Your task to perform on an android device: turn off translation in the chrome app Image 0: 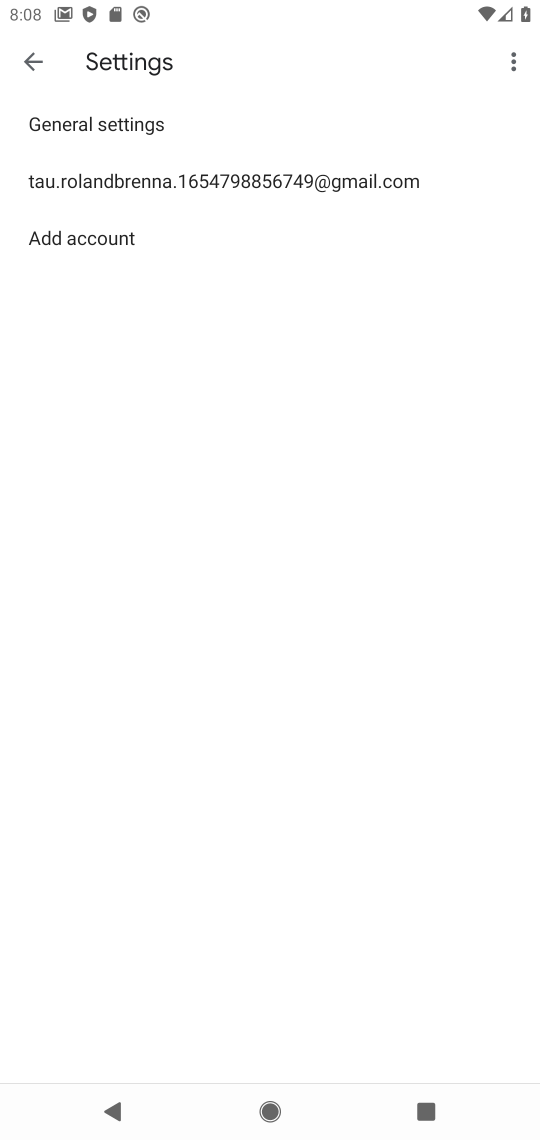
Step 0: press home button
Your task to perform on an android device: turn off translation in the chrome app Image 1: 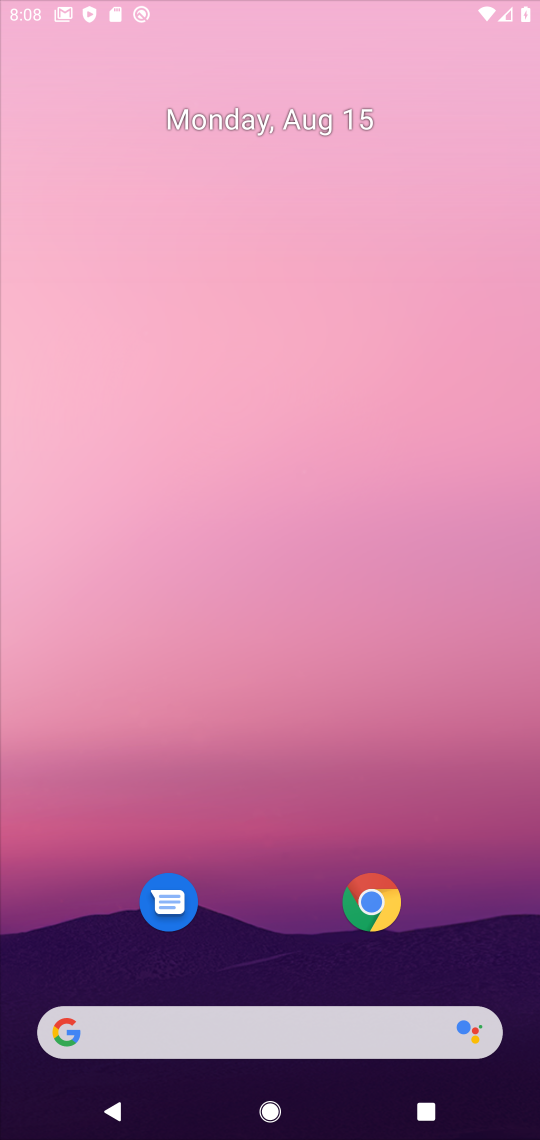
Step 1: drag from (487, 971) to (355, 4)
Your task to perform on an android device: turn off translation in the chrome app Image 2: 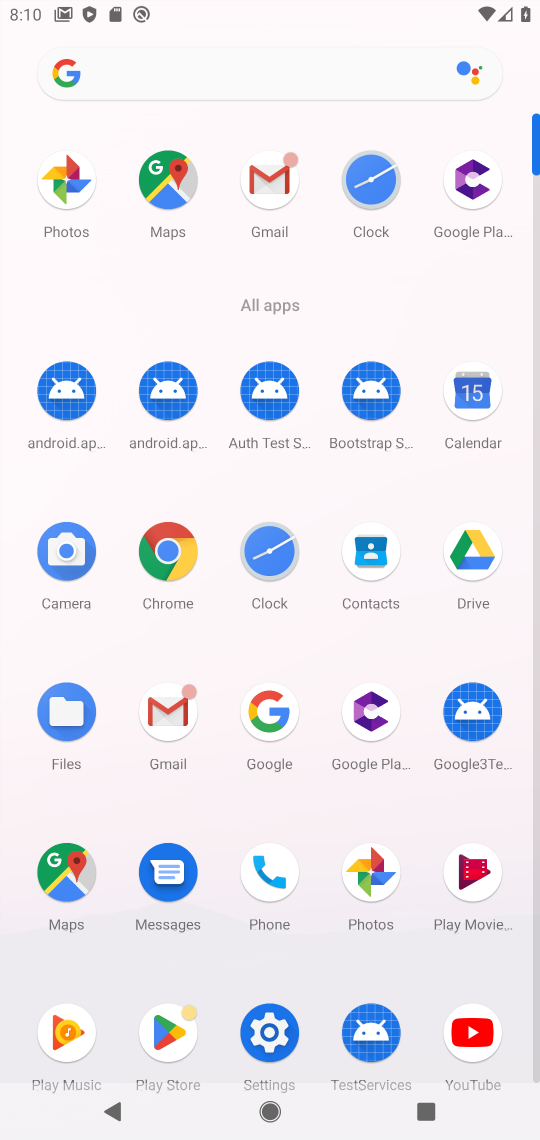
Step 2: click (159, 534)
Your task to perform on an android device: turn off translation in the chrome app Image 3: 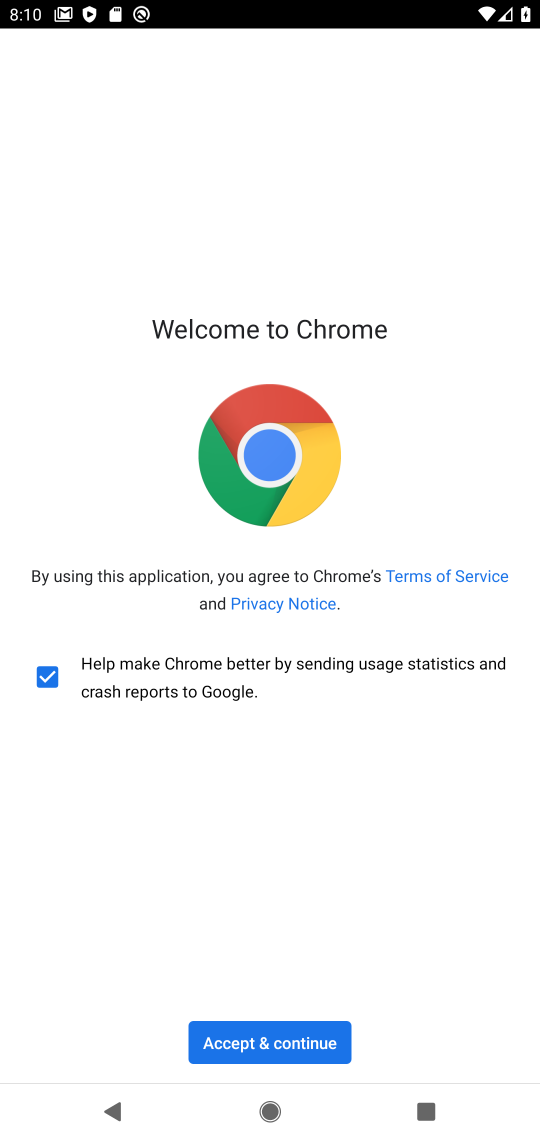
Step 3: click (298, 1050)
Your task to perform on an android device: turn off translation in the chrome app Image 4: 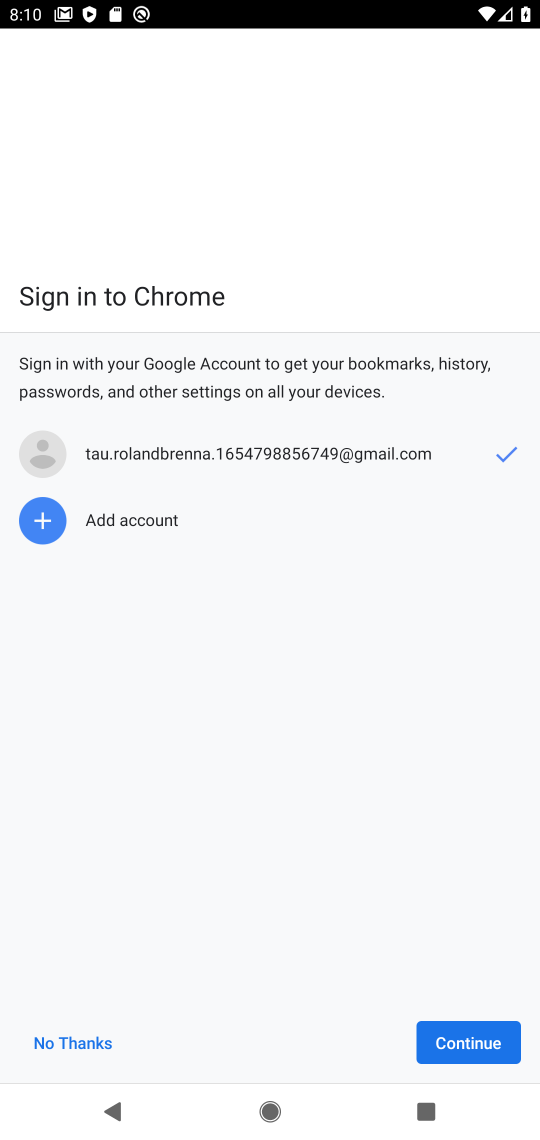
Step 4: click (494, 1041)
Your task to perform on an android device: turn off translation in the chrome app Image 5: 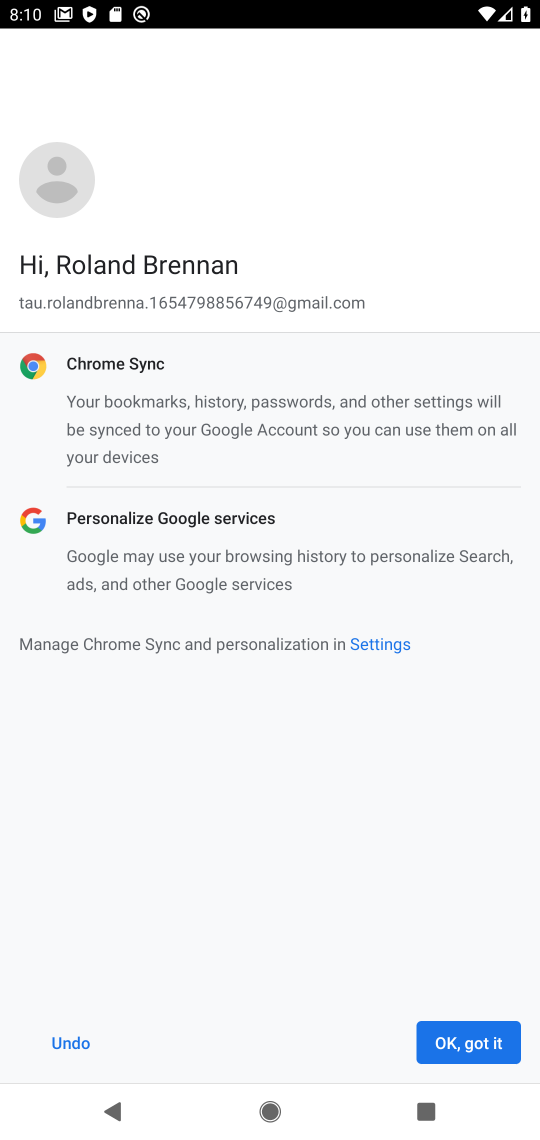
Step 5: click (494, 1041)
Your task to perform on an android device: turn off translation in the chrome app Image 6: 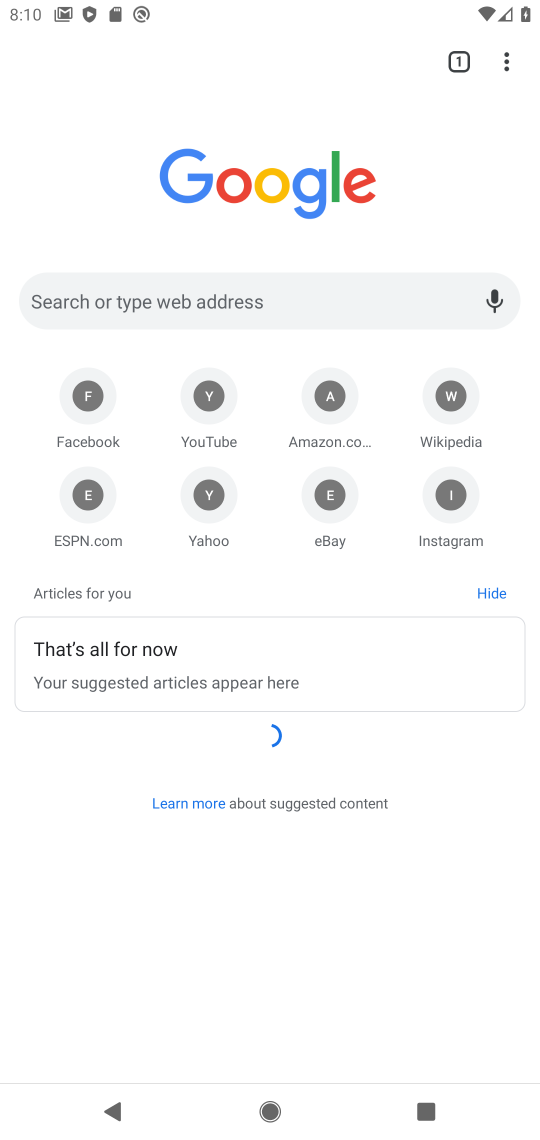
Step 6: click (501, 55)
Your task to perform on an android device: turn off translation in the chrome app Image 7: 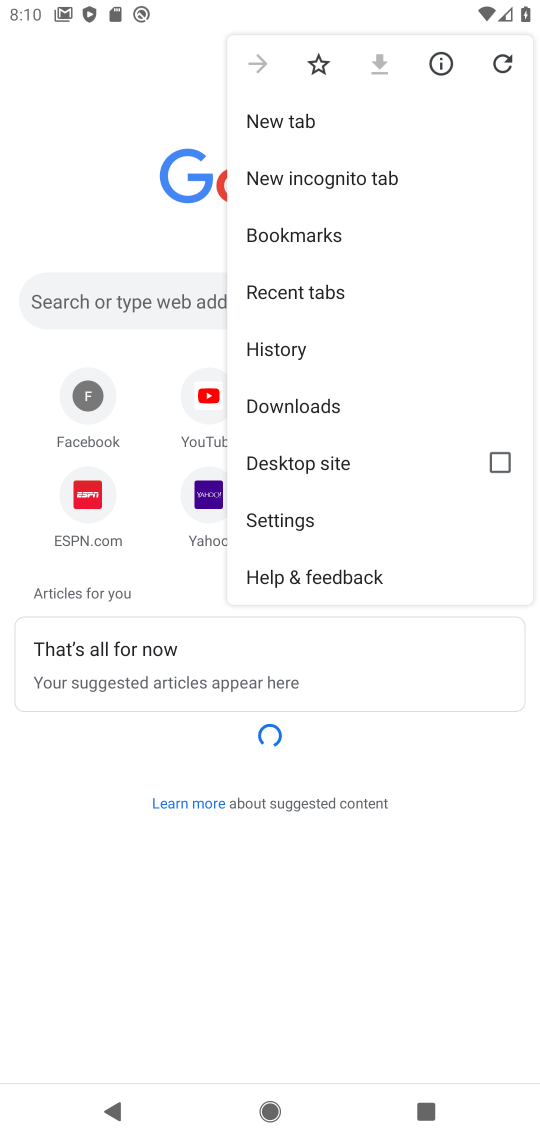
Step 7: click (313, 515)
Your task to perform on an android device: turn off translation in the chrome app Image 8: 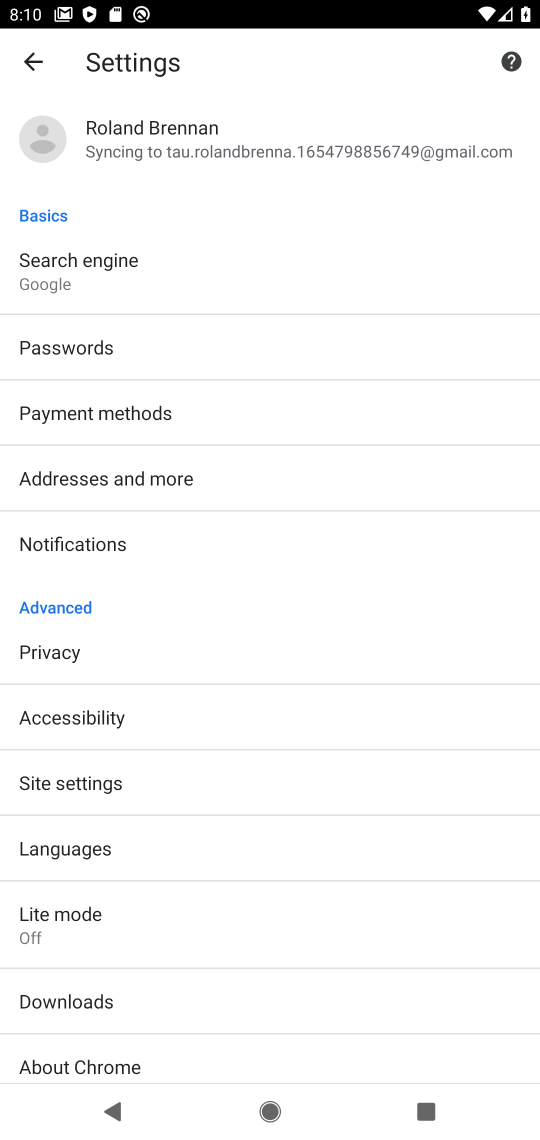
Step 8: click (145, 843)
Your task to perform on an android device: turn off translation in the chrome app Image 9: 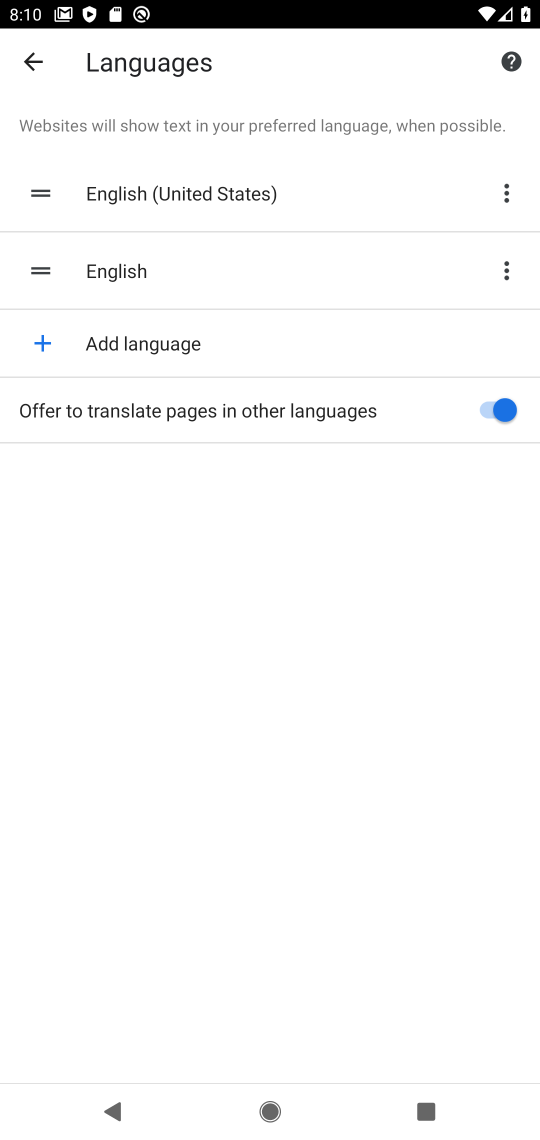
Step 9: click (518, 410)
Your task to perform on an android device: turn off translation in the chrome app Image 10: 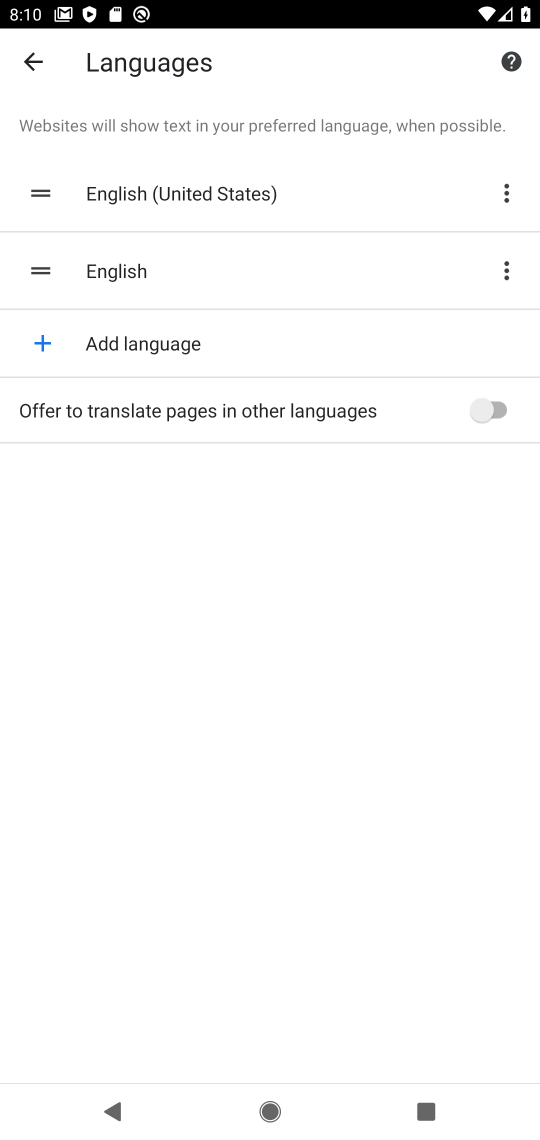
Step 10: task complete